Your task to perform on an android device: Go to display settings Image 0: 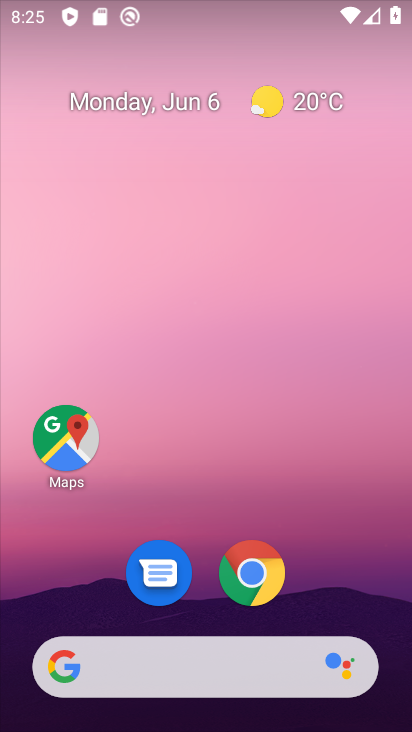
Step 0: drag from (188, 559) to (187, 102)
Your task to perform on an android device: Go to display settings Image 1: 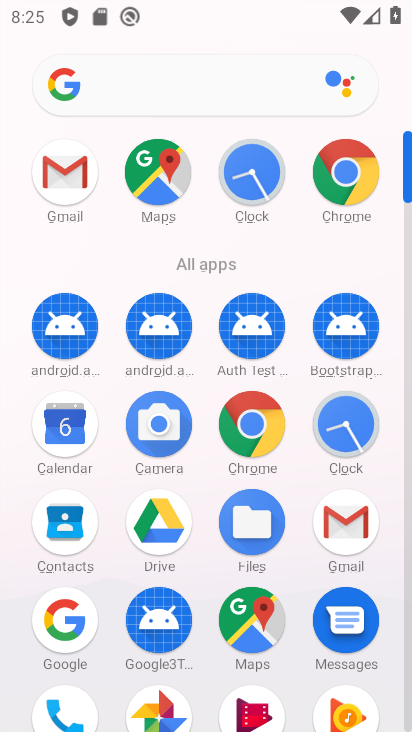
Step 1: drag from (210, 616) to (259, 128)
Your task to perform on an android device: Go to display settings Image 2: 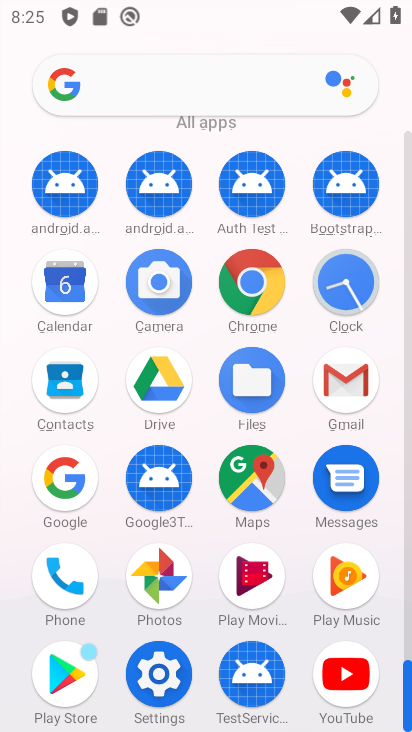
Step 2: click (154, 672)
Your task to perform on an android device: Go to display settings Image 3: 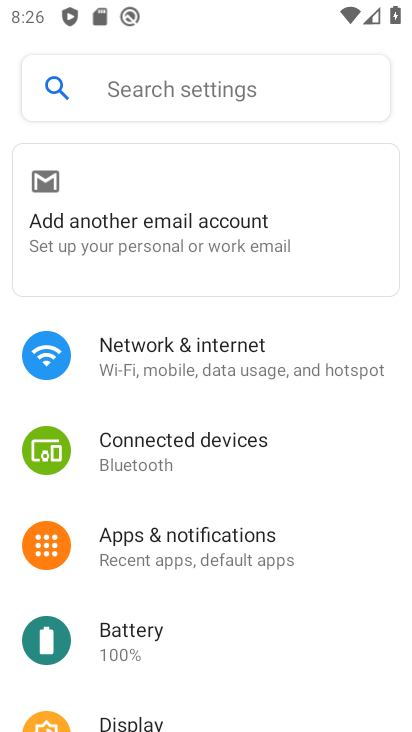
Step 3: click (142, 725)
Your task to perform on an android device: Go to display settings Image 4: 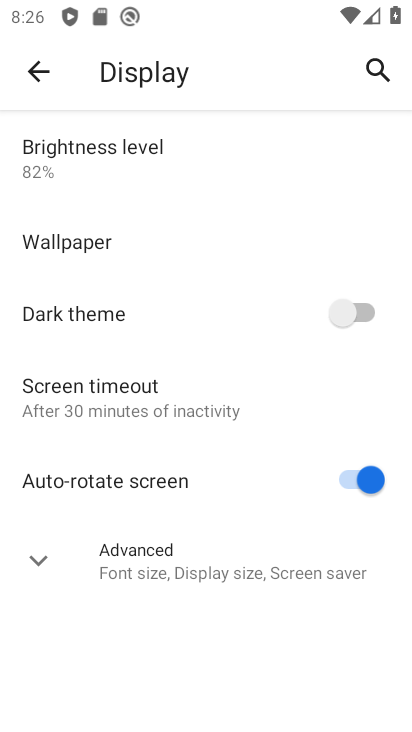
Step 4: task complete